Your task to perform on an android device: Is it going to rain tomorrow? Image 0: 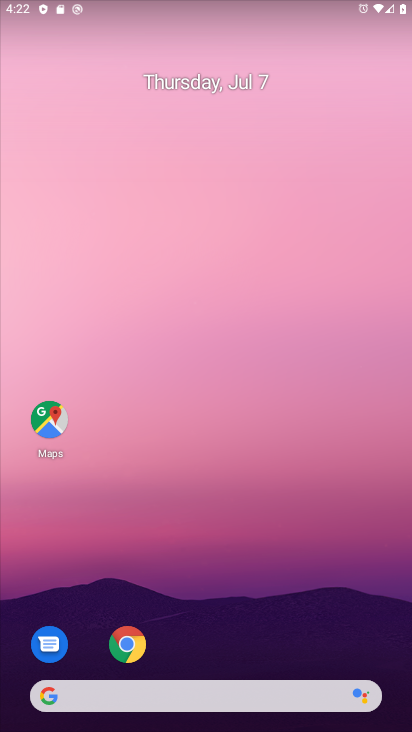
Step 0: drag from (240, 634) to (157, 68)
Your task to perform on an android device: Is it going to rain tomorrow? Image 1: 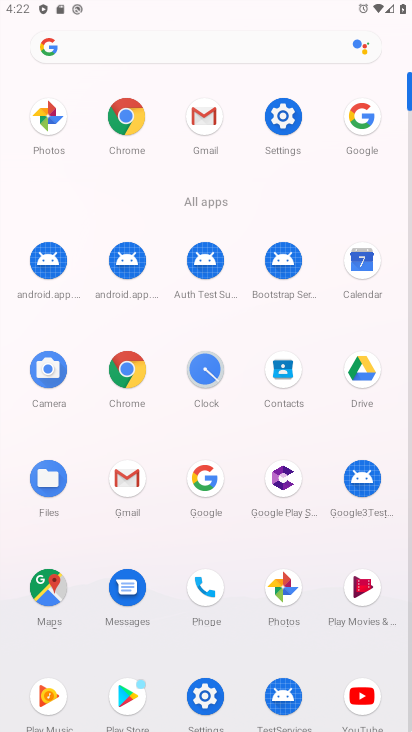
Step 1: click (203, 477)
Your task to perform on an android device: Is it going to rain tomorrow? Image 2: 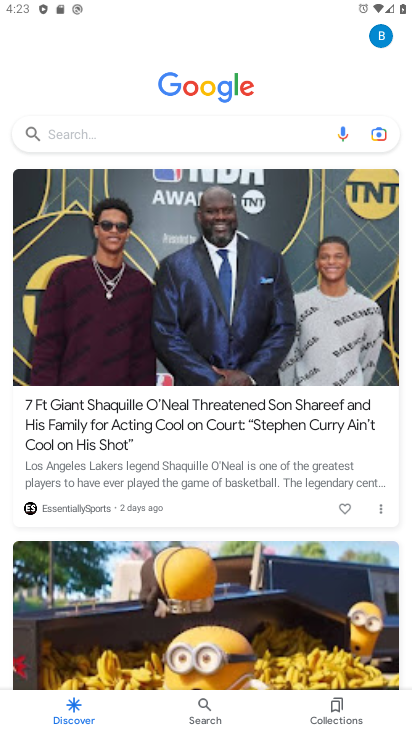
Step 2: click (197, 137)
Your task to perform on an android device: Is it going to rain tomorrow? Image 3: 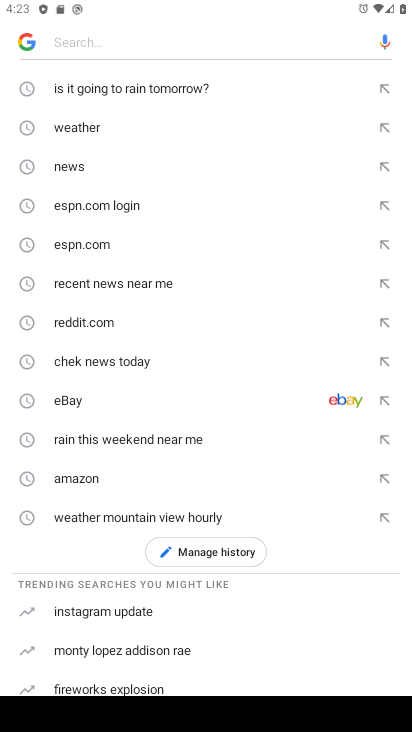
Step 3: click (195, 84)
Your task to perform on an android device: Is it going to rain tomorrow? Image 4: 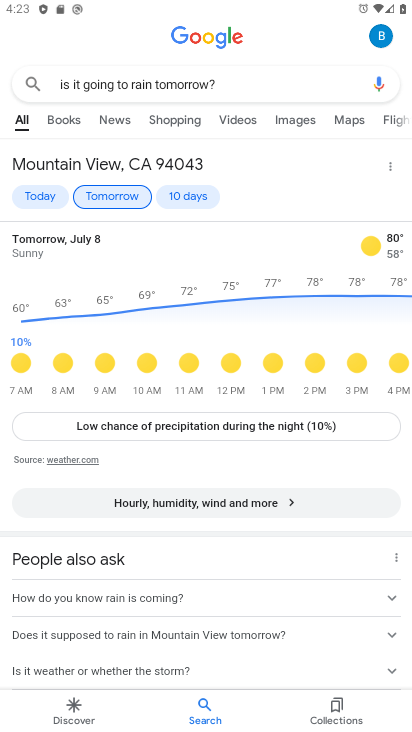
Step 4: task complete